Your task to perform on an android device: Open Android settings Image 0: 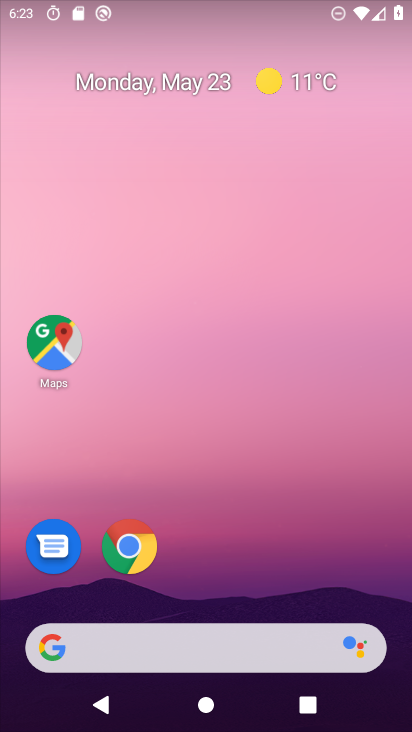
Step 0: drag from (254, 576) to (198, 260)
Your task to perform on an android device: Open Android settings Image 1: 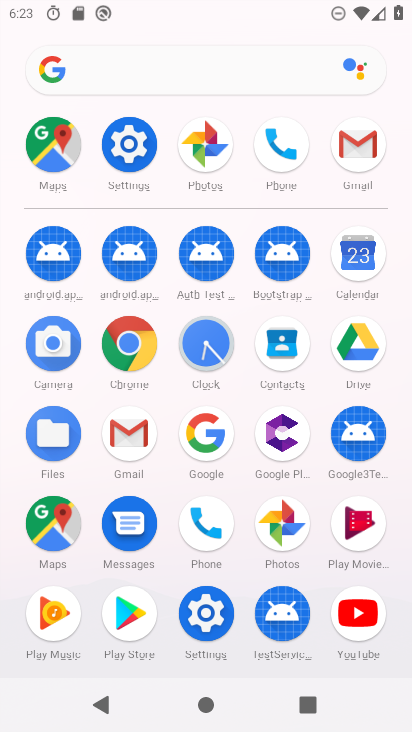
Step 1: click (131, 147)
Your task to perform on an android device: Open Android settings Image 2: 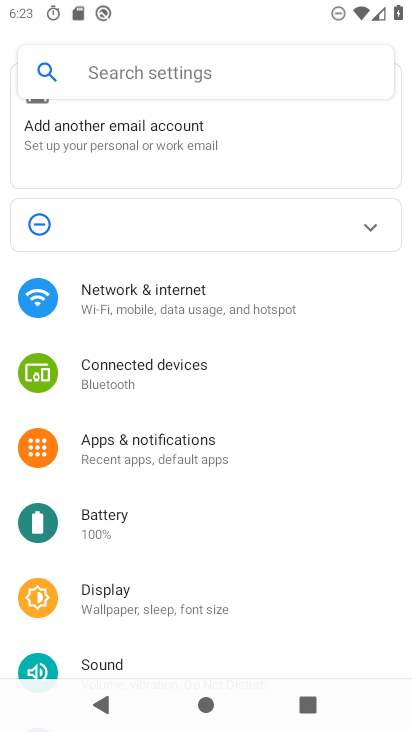
Step 2: drag from (244, 612) to (198, 177)
Your task to perform on an android device: Open Android settings Image 3: 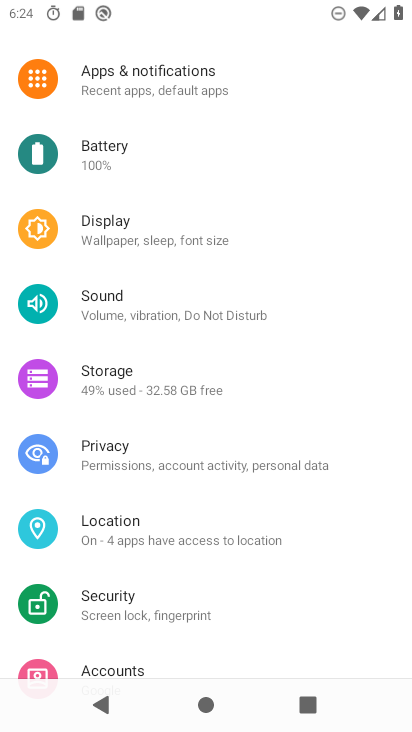
Step 3: drag from (216, 591) to (205, 257)
Your task to perform on an android device: Open Android settings Image 4: 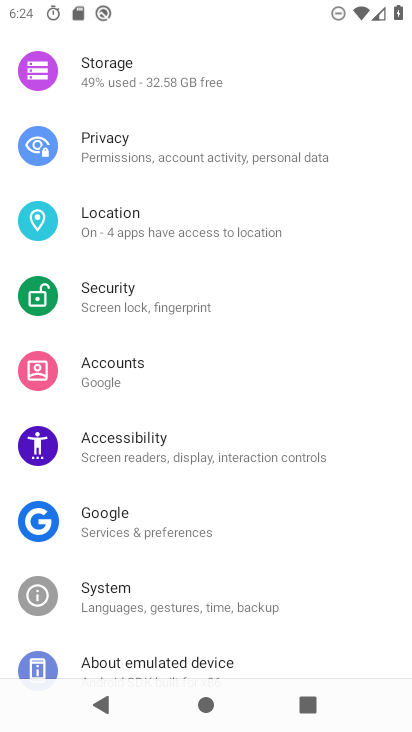
Step 4: drag from (248, 664) to (220, 271)
Your task to perform on an android device: Open Android settings Image 5: 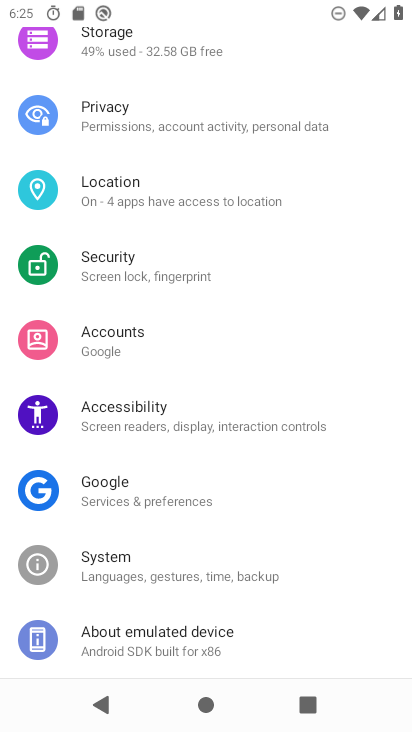
Step 5: click (211, 654)
Your task to perform on an android device: Open Android settings Image 6: 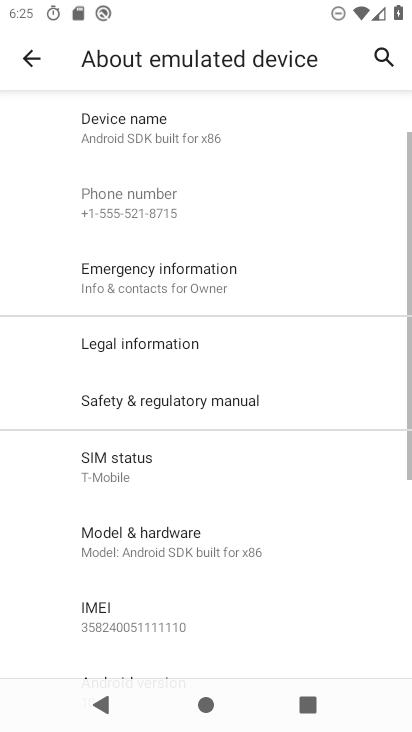
Step 6: drag from (224, 633) to (225, 248)
Your task to perform on an android device: Open Android settings Image 7: 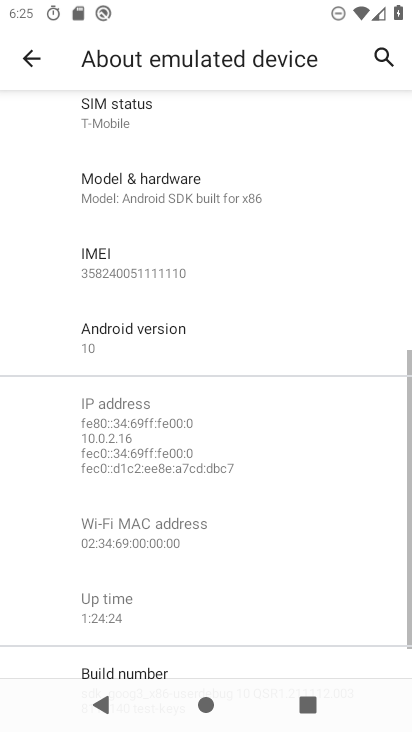
Step 7: click (123, 361)
Your task to perform on an android device: Open Android settings Image 8: 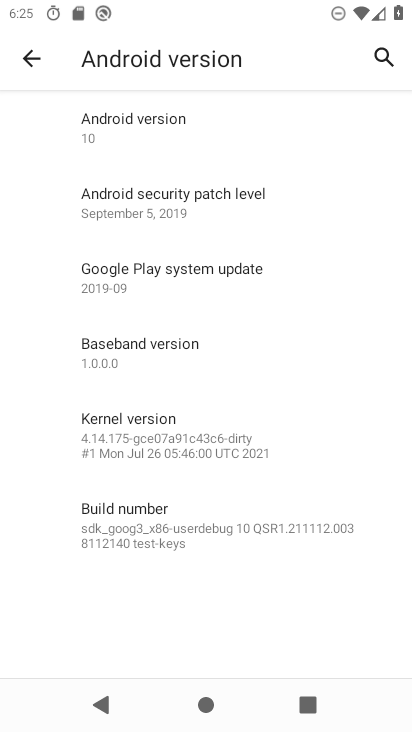
Step 8: task complete